Your task to perform on an android device: turn off location history Image 0: 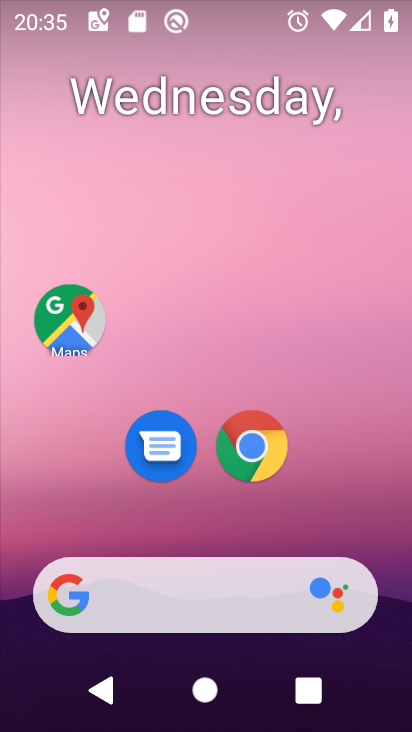
Step 0: drag from (192, 596) to (166, 186)
Your task to perform on an android device: turn off location history Image 1: 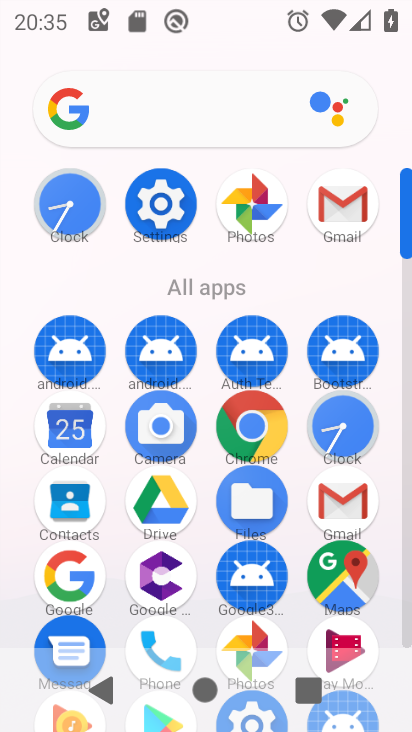
Step 1: click (137, 191)
Your task to perform on an android device: turn off location history Image 2: 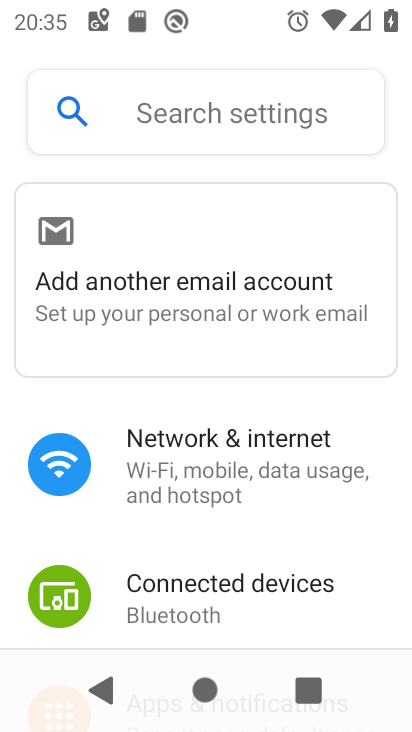
Step 2: drag from (181, 482) to (192, 87)
Your task to perform on an android device: turn off location history Image 3: 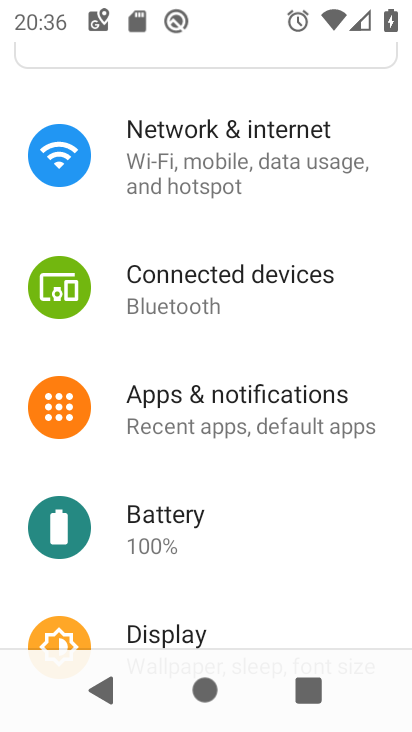
Step 3: drag from (184, 564) to (183, 100)
Your task to perform on an android device: turn off location history Image 4: 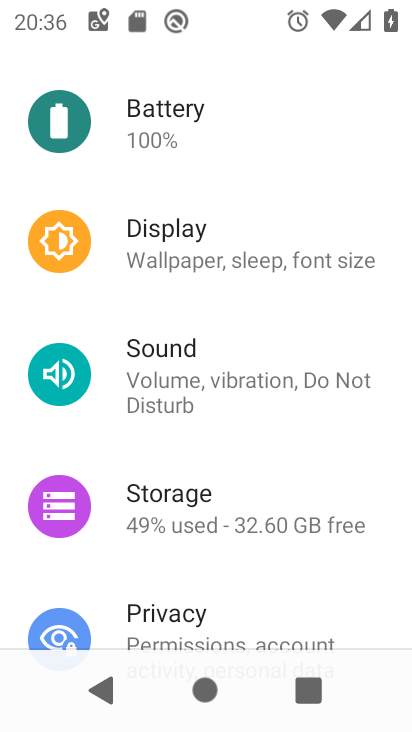
Step 4: drag from (180, 488) to (178, 117)
Your task to perform on an android device: turn off location history Image 5: 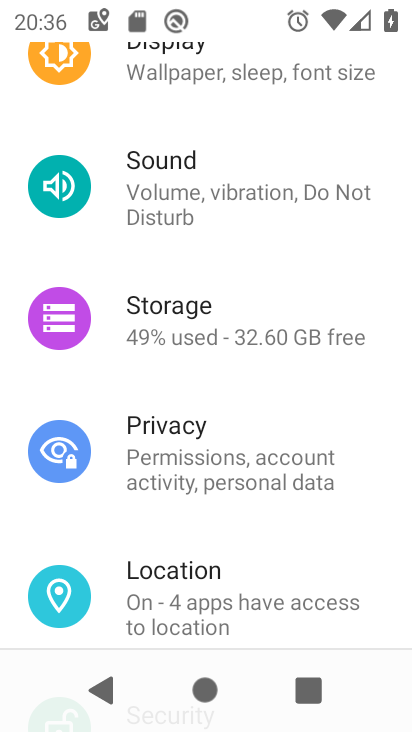
Step 5: click (161, 577)
Your task to perform on an android device: turn off location history Image 6: 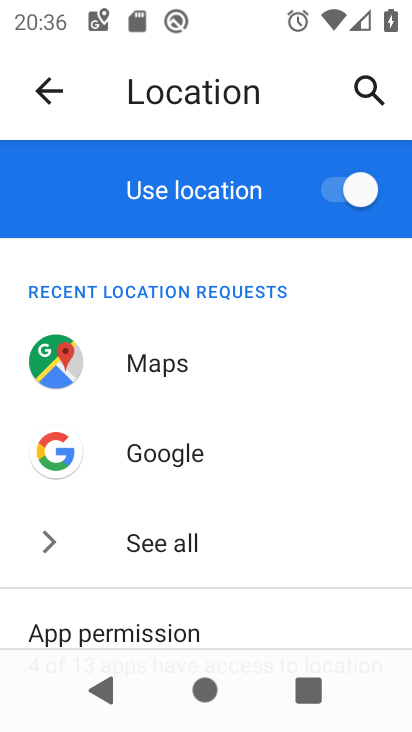
Step 6: drag from (232, 381) to (248, 175)
Your task to perform on an android device: turn off location history Image 7: 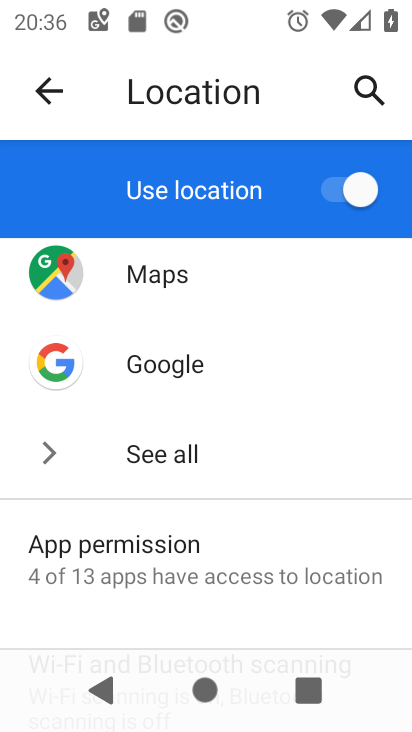
Step 7: drag from (208, 580) to (208, 344)
Your task to perform on an android device: turn off location history Image 8: 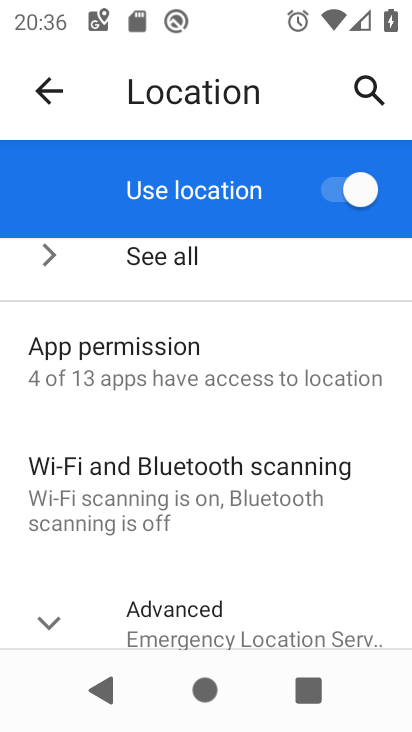
Step 8: click (210, 609)
Your task to perform on an android device: turn off location history Image 9: 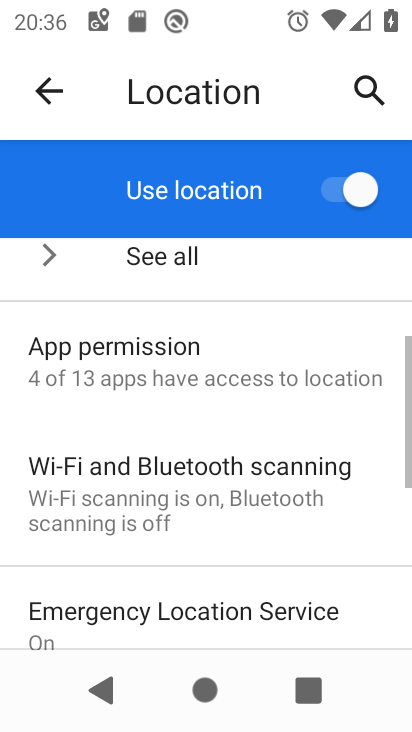
Step 9: drag from (235, 585) to (198, 263)
Your task to perform on an android device: turn off location history Image 10: 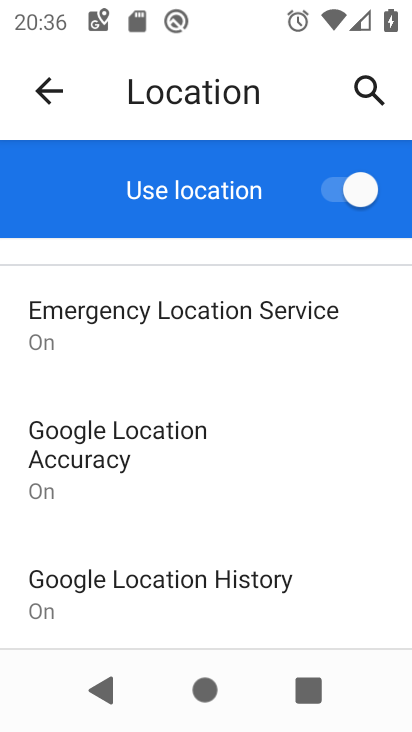
Step 10: click (133, 462)
Your task to perform on an android device: turn off location history Image 11: 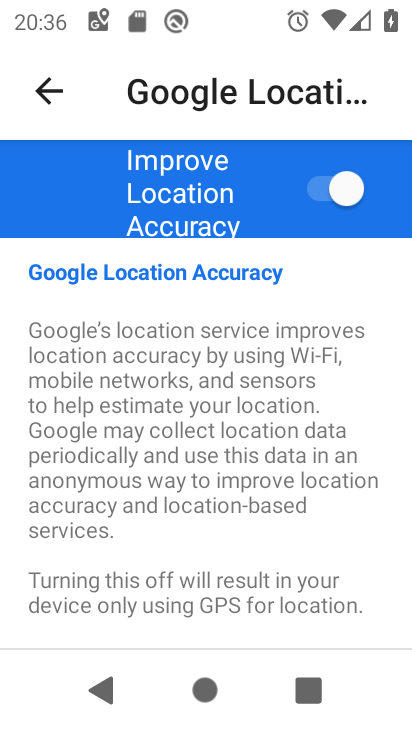
Step 11: click (328, 184)
Your task to perform on an android device: turn off location history Image 12: 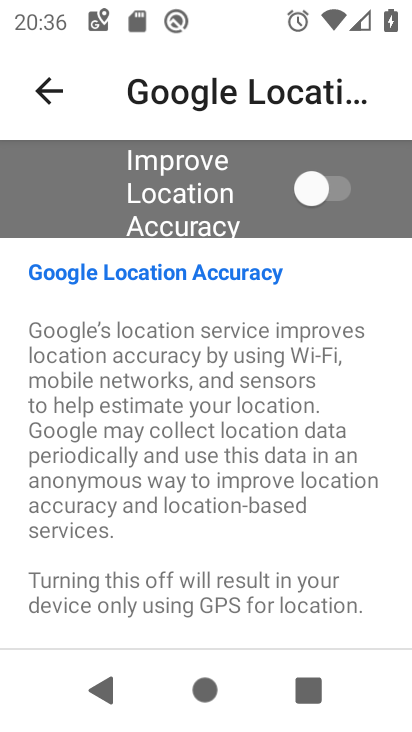
Step 12: task complete